Your task to perform on an android device: See recent photos Image 0: 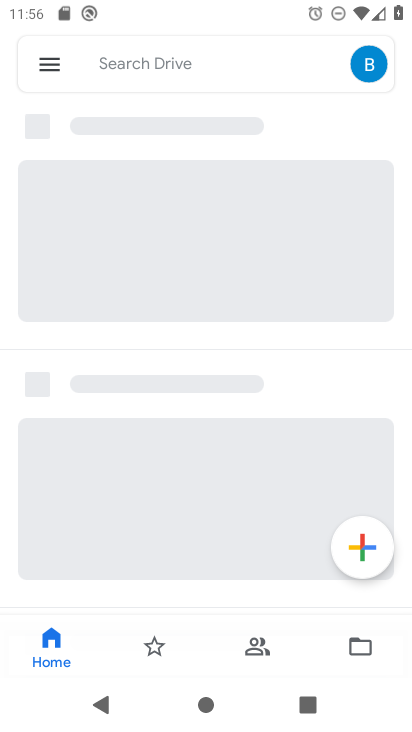
Step 0: press home button
Your task to perform on an android device: See recent photos Image 1: 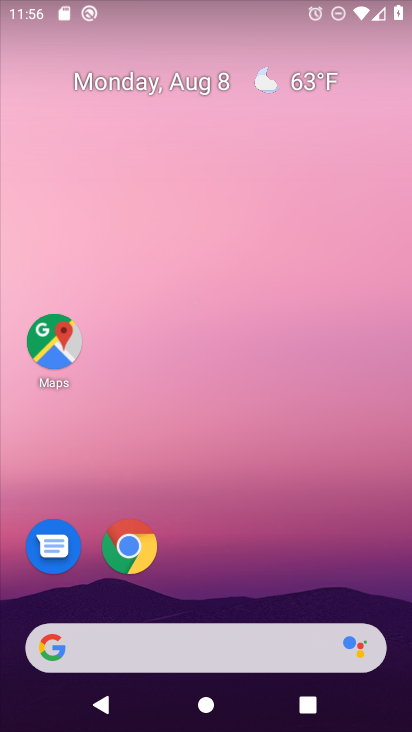
Step 1: drag from (238, 597) to (300, 0)
Your task to perform on an android device: See recent photos Image 2: 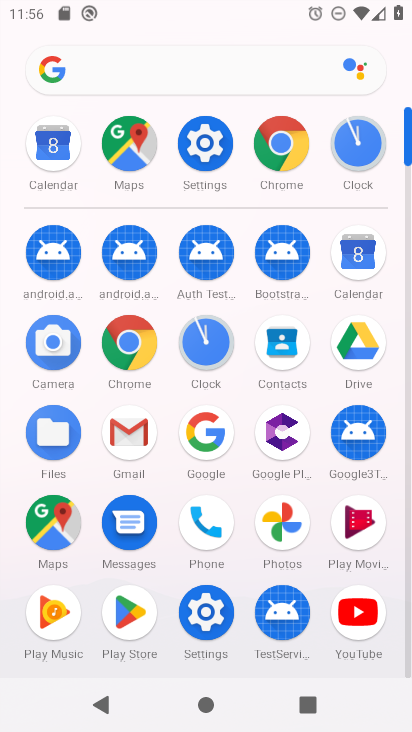
Step 2: click (283, 520)
Your task to perform on an android device: See recent photos Image 3: 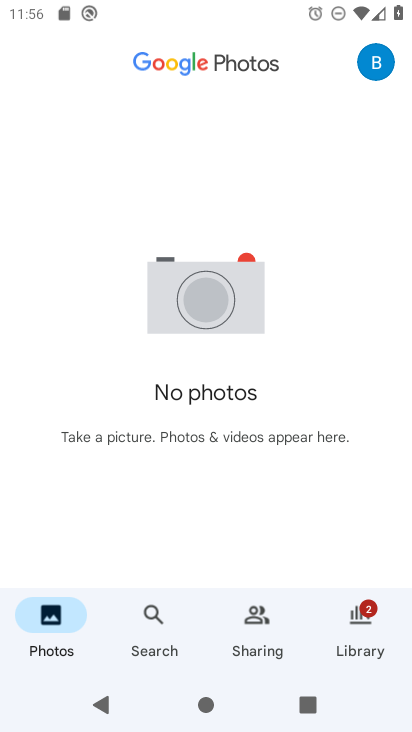
Step 3: task complete